Your task to perform on an android device: turn off priority inbox in the gmail app Image 0: 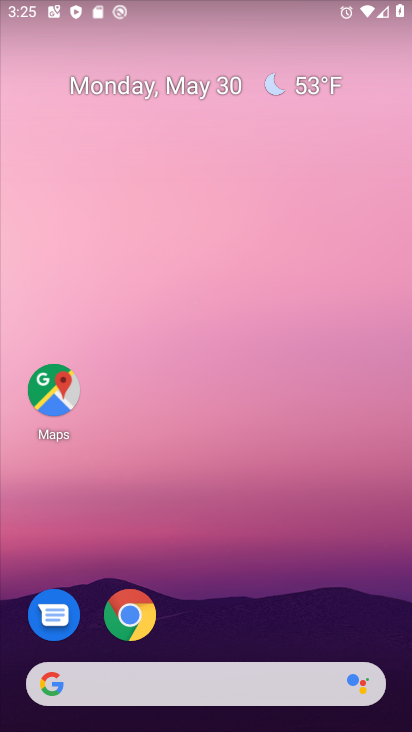
Step 0: drag from (243, 604) to (232, 224)
Your task to perform on an android device: turn off priority inbox in the gmail app Image 1: 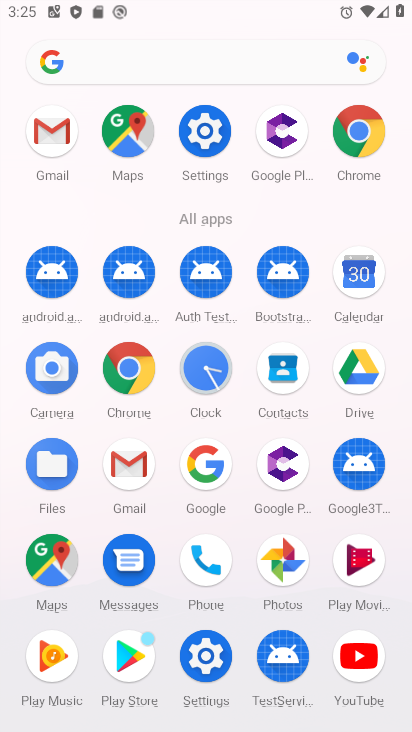
Step 1: click (126, 472)
Your task to perform on an android device: turn off priority inbox in the gmail app Image 2: 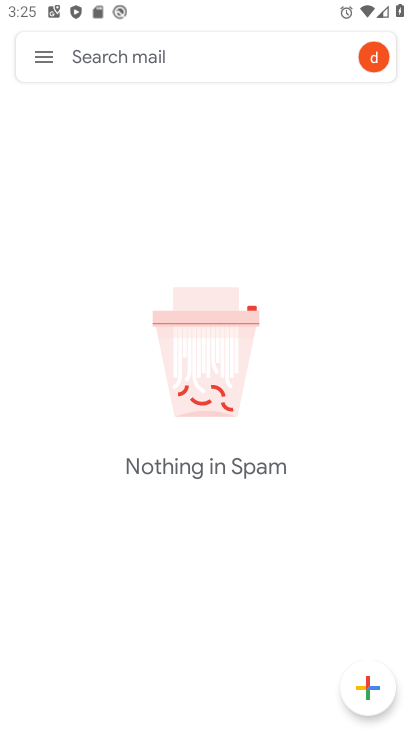
Step 2: click (47, 57)
Your task to perform on an android device: turn off priority inbox in the gmail app Image 3: 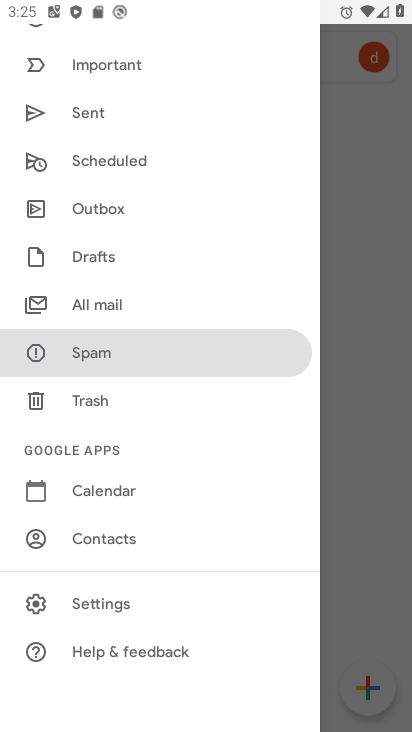
Step 3: click (156, 604)
Your task to perform on an android device: turn off priority inbox in the gmail app Image 4: 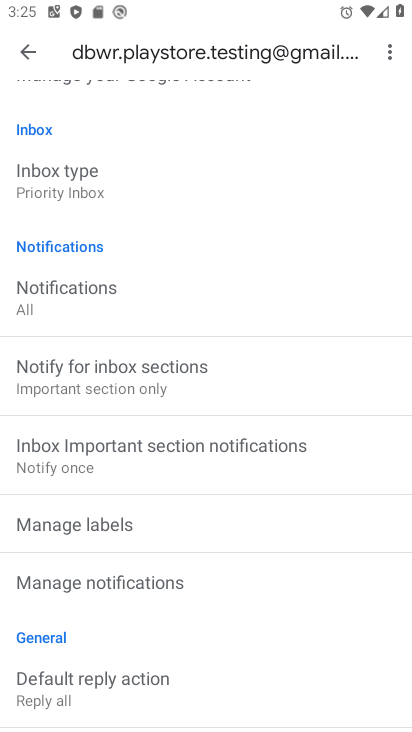
Step 4: click (112, 194)
Your task to perform on an android device: turn off priority inbox in the gmail app Image 5: 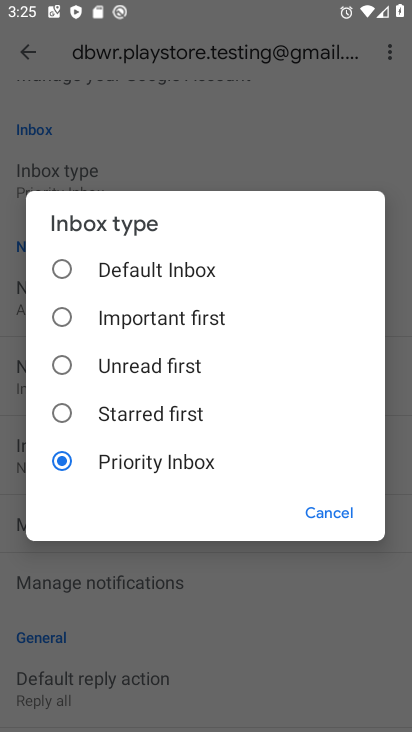
Step 5: click (105, 265)
Your task to perform on an android device: turn off priority inbox in the gmail app Image 6: 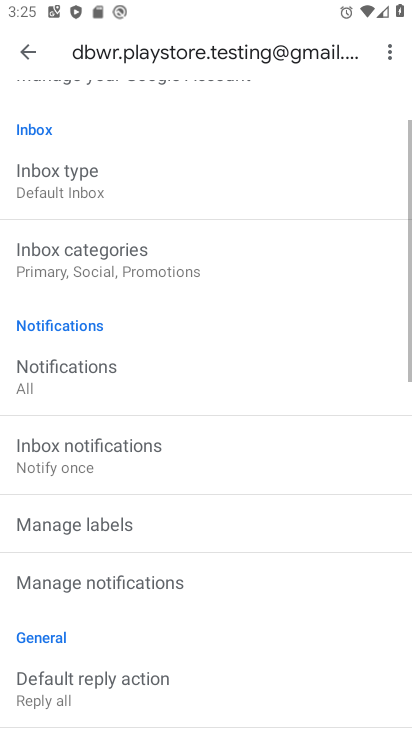
Step 6: task complete